Your task to perform on an android device: toggle airplane mode Image 0: 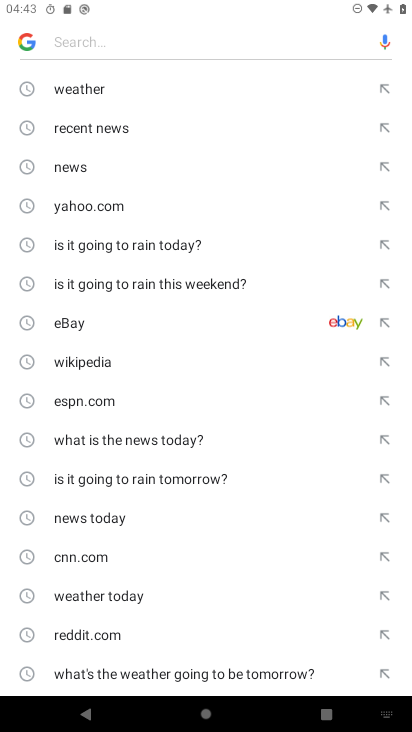
Step 0: press home button
Your task to perform on an android device: toggle airplane mode Image 1: 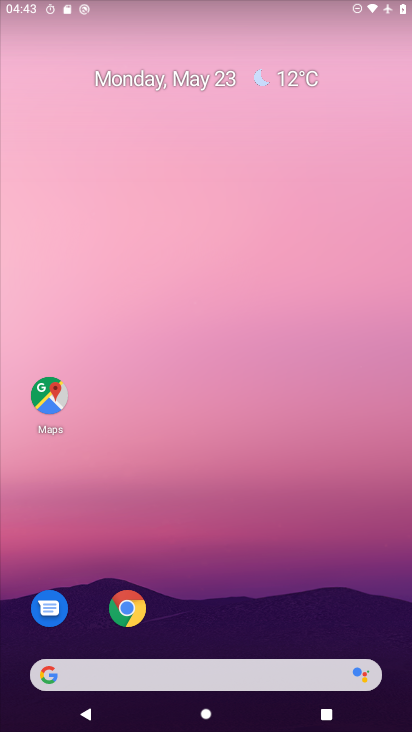
Step 1: drag from (293, 555) to (227, 7)
Your task to perform on an android device: toggle airplane mode Image 2: 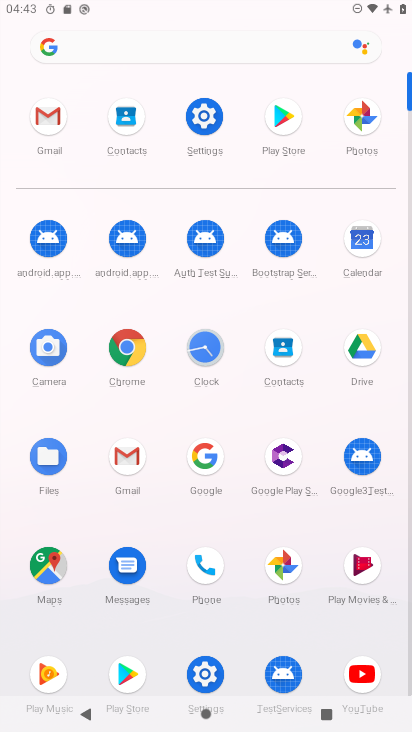
Step 2: click (200, 185)
Your task to perform on an android device: toggle airplane mode Image 3: 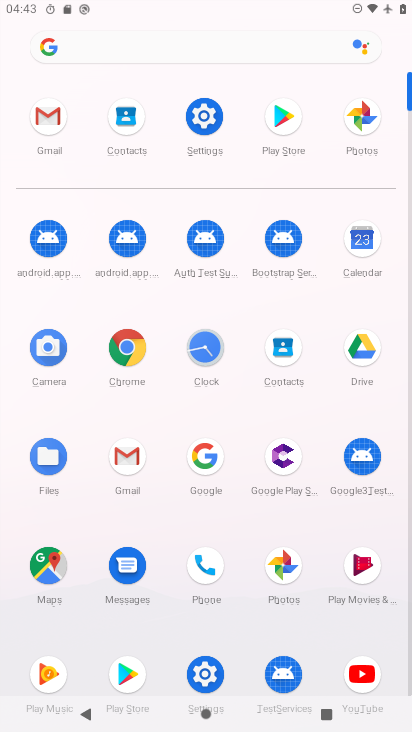
Step 3: click (204, 108)
Your task to perform on an android device: toggle airplane mode Image 4: 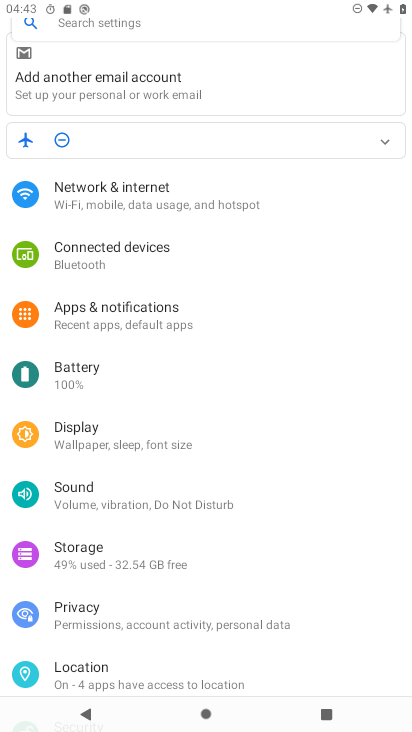
Step 4: click (181, 186)
Your task to perform on an android device: toggle airplane mode Image 5: 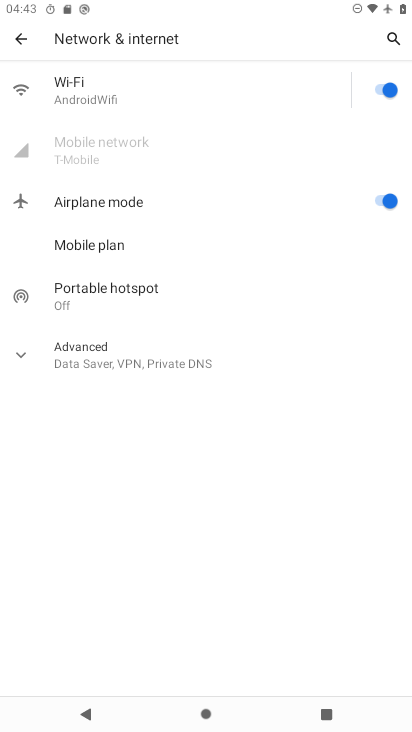
Step 5: click (379, 211)
Your task to perform on an android device: toggle airplane mode Image 6: 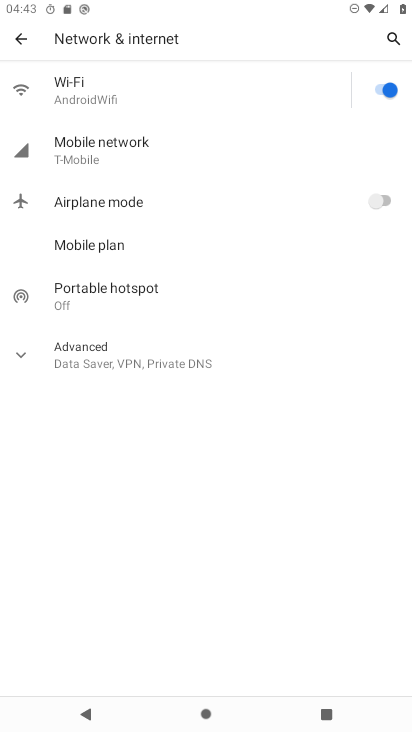
Step 6: task complete